Your task to perform on an android device: see creations saved in the google photos Image 0: 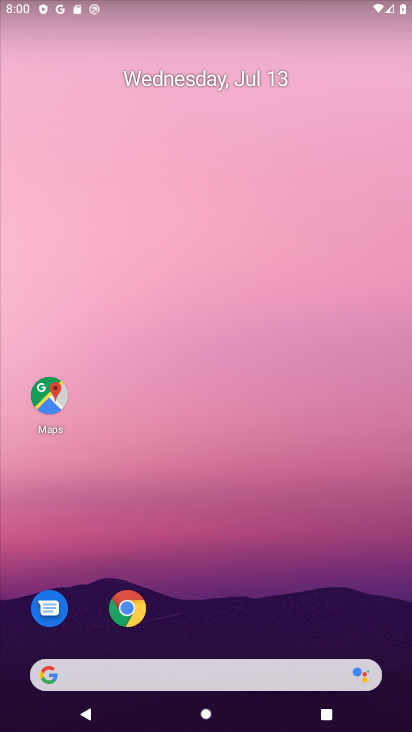
Step 0: drag from (280, 697) to (163, 262)
Your task to perform on an android device: see creations saved in the google photos Image 1: 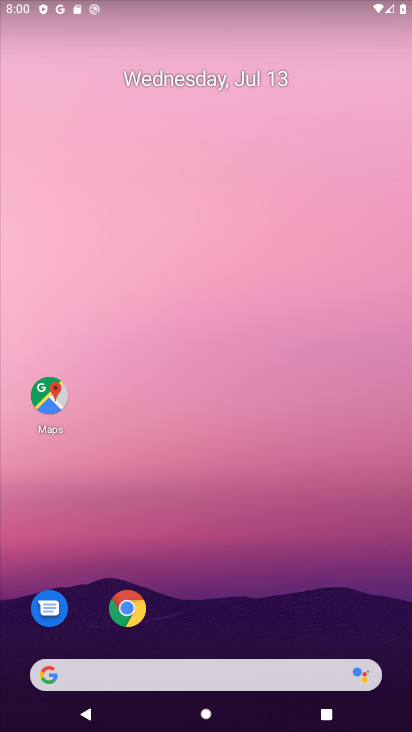
Step 1: drag from (187, 527) to (156, 0)
Your task to perform on an android device: see creations saved in the google photos Image 2: 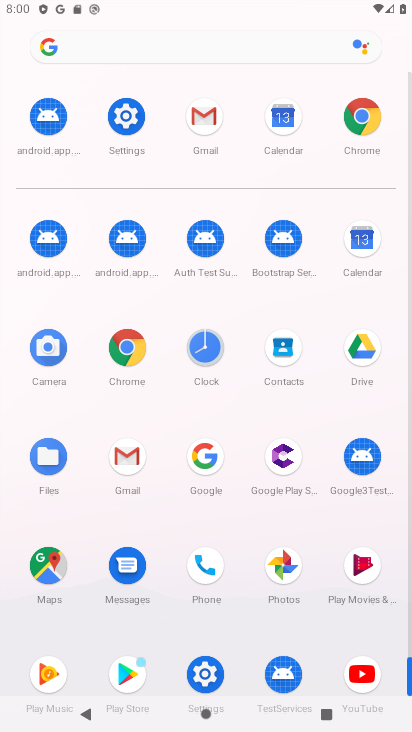
Step 2: click (285, 555)
Your task to perform on an android device: see creations saved in the google photos Image 3: 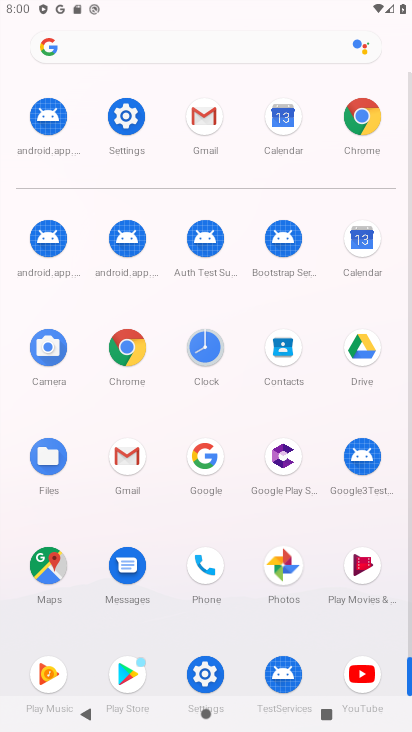
Step 3: click (285, 555)
Your task to perform on an android device: see creations saved in the google photos Image 4: 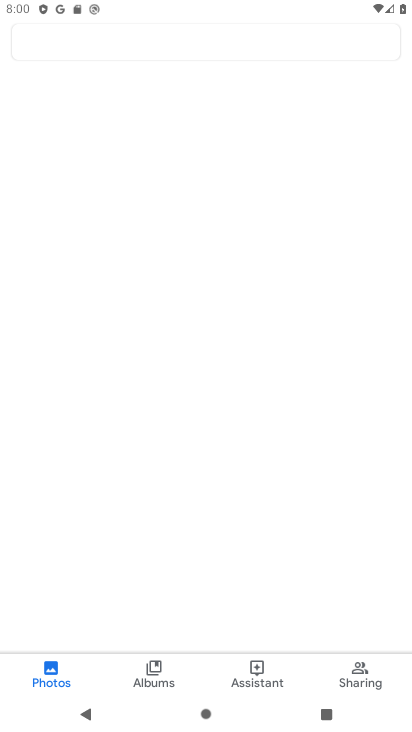
Step 4: click (285, 555)
Your task to perform on an android device: see creations saved in the google photos Image 5: 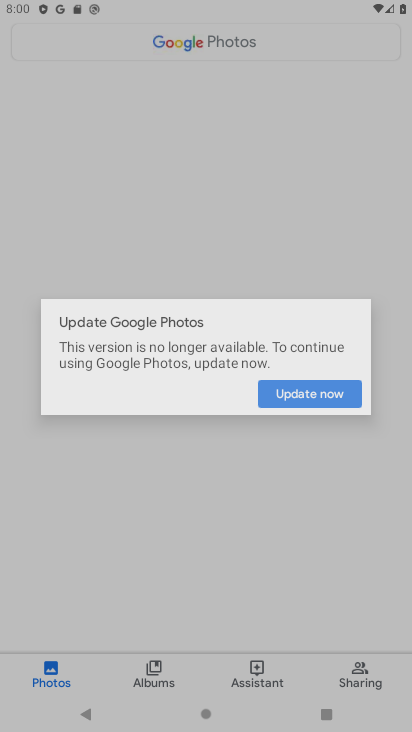
Step 5: click (285, 555)
Your task to perform on an android device: see creations saved in the google photos Image 6: 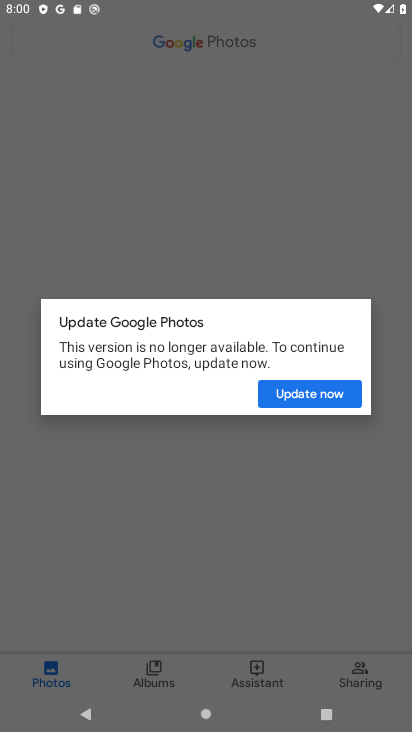
Step 6: click (285, 555)
Your task to perform on an android device: see creations saved in the google photos Image 7: 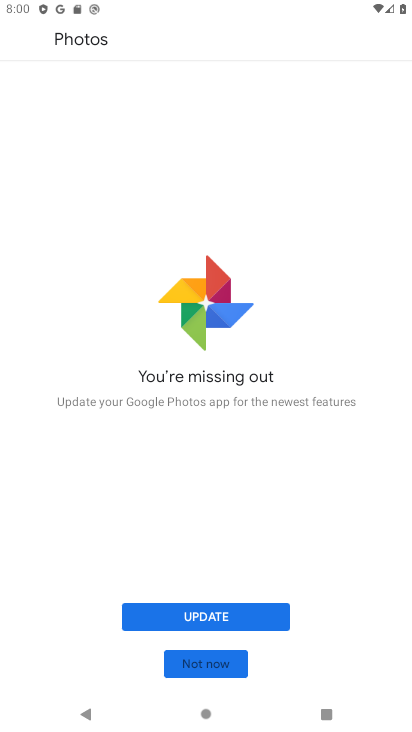
Step 7: click (209, 676)
Your task to perform on an android device: see creations saved in the google photos Image 8: 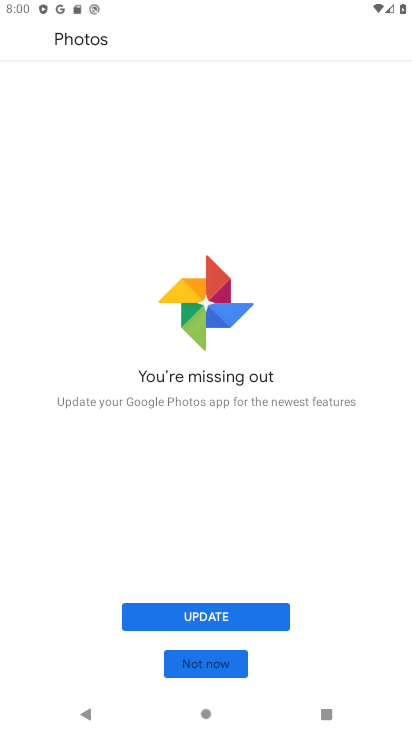
Step 8: click (208, 676)
Your task to perform on an android device: see creations saved in the google photos Image 9: 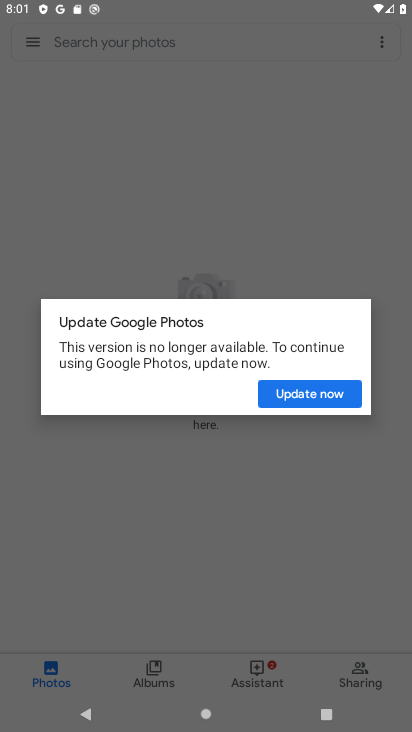
Step 9: click (291, 452)
Your task to perform on an android device: see creations saved in the google photos Image 10: 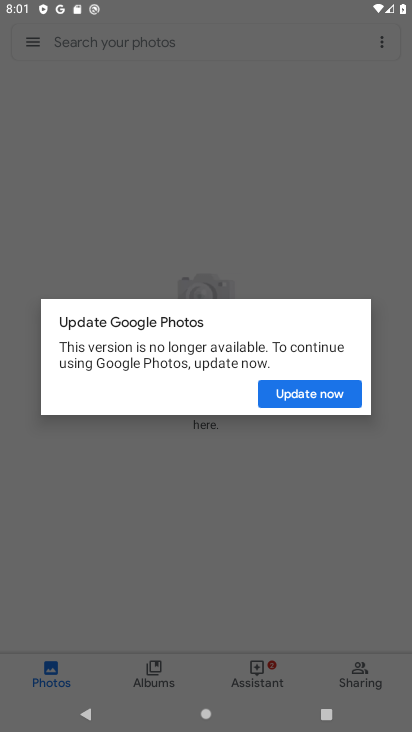
Step 10: click (291, 452)
Your task to perform on an android device: see creations saved in the google photos Image 11: 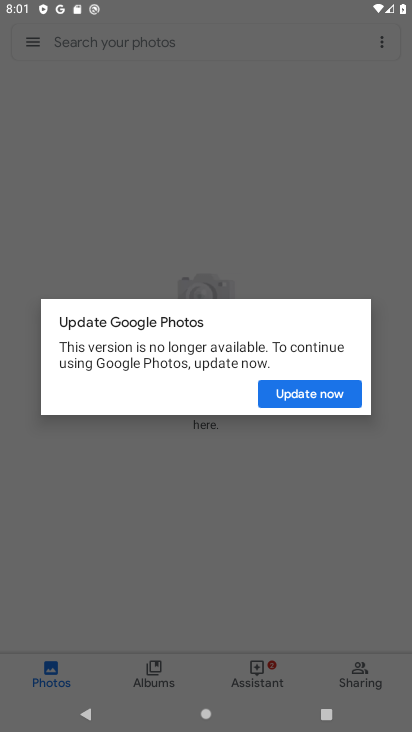
Step 11: click (291, 452)
Your task to perform on an android device: see creations saved in the google photos Image 12: 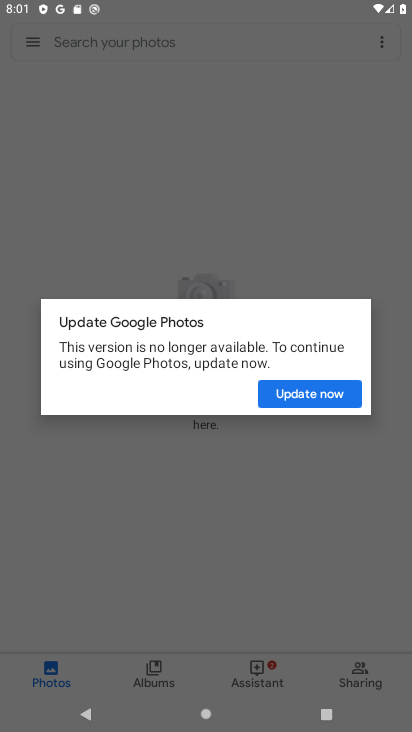
Step 12: click (307, 382)
Your task to perform on an android device: see creations saved in the google photos Image 13: 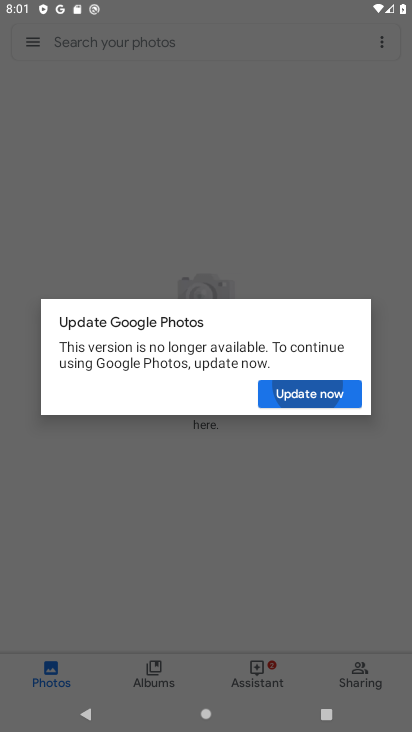
Step 13: click (309, 384)
Your task to perform on an android device: see creations saved in the google photos Image 14: 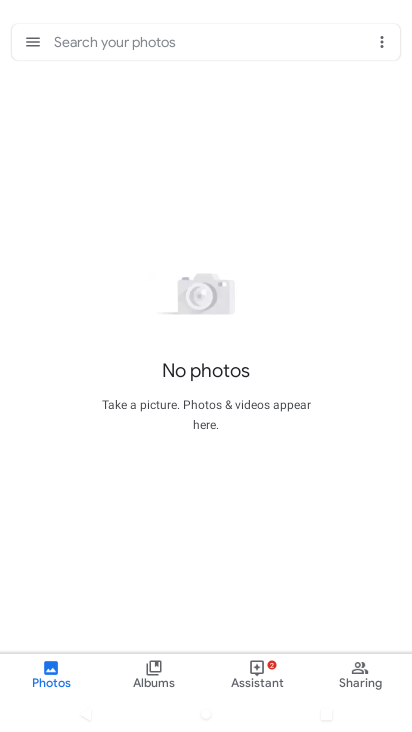
Step 14: click (312, 389)
Your task to perform on an android device: see creations saved in the google photos Image 15: 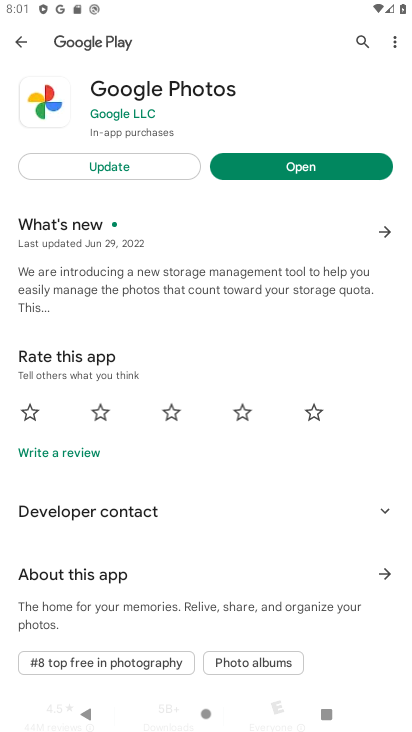
Step 15: click (181, 176)
Your task to perform on an android device: see creations saved in the google photos Image 16: 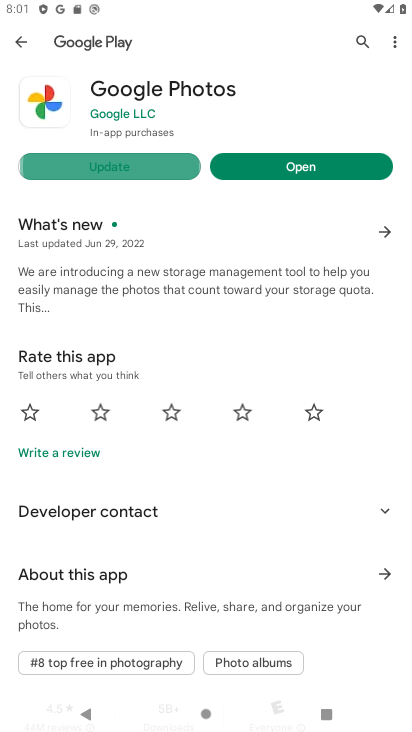
Step 16: click (174, 169)
Your task to perform on an android device: see creations saved in the google photos Image 17: 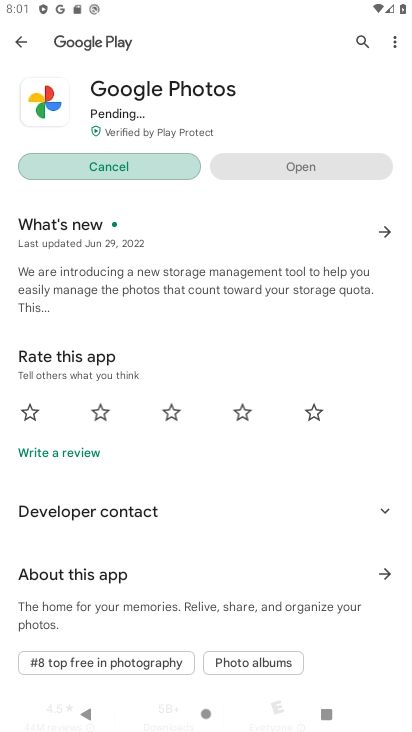
Step 17: click (165, 162)
Your task to perform on an android device: see creations saved in the google photos Image 18: 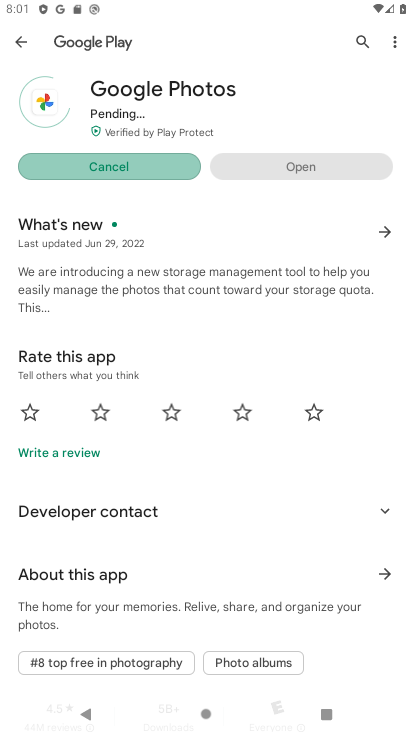
Step 18: click (165, 162)
Your task to perform on an android device: see creations saved in the google photos Image 19: 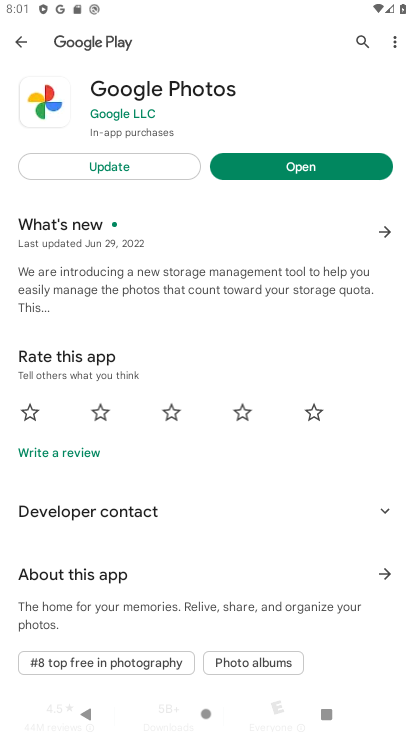
Step 19: click (338, 172)
Your task to perform on an android device: see creations saved in the google photos Image 20: 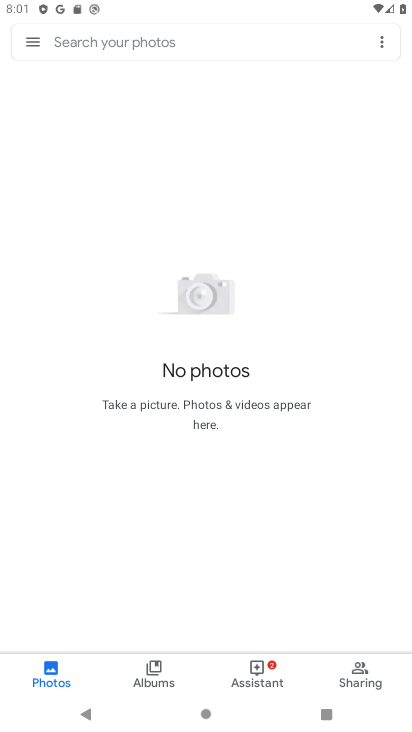
Step 20: task complete